Your task to perform on an android device: open sync settings in chrome Image 0: 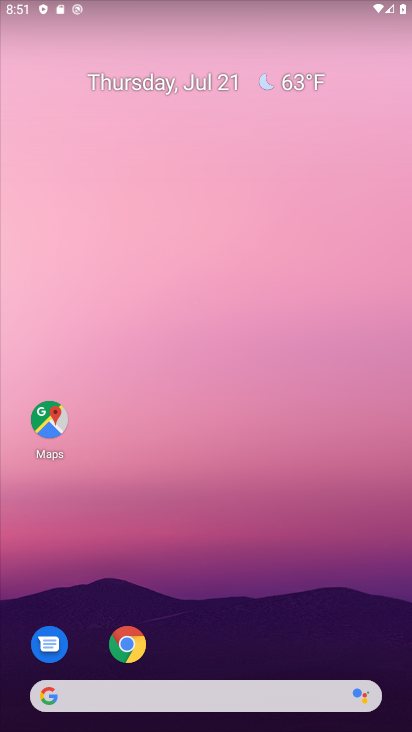
Step 0: press home button
Your task to perform on an android device: open sync settings in chrome Image 1: 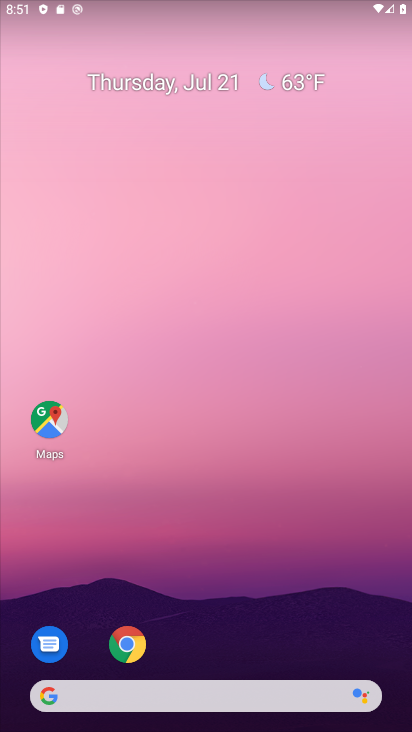
Step 1: click (122, 636)
Your task to perform on an android device: open sync settings in chrome Image 2: 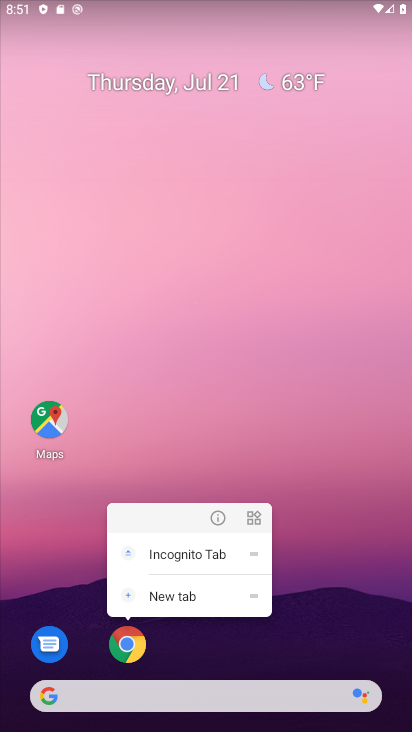
Step 2: click (126, 642)
Your task to perform on an android device: open sync settings in chrome Image 3: 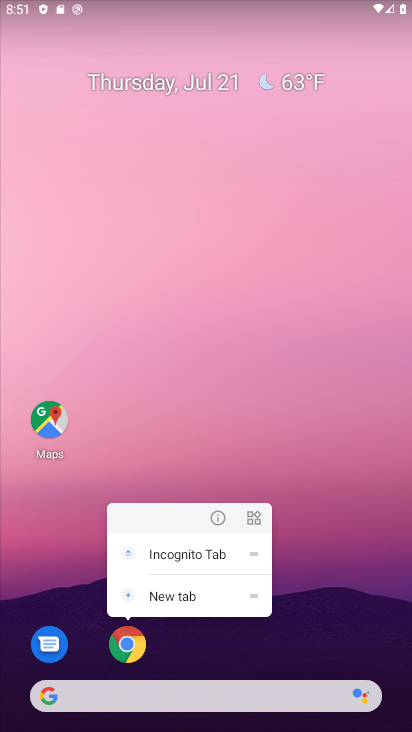
Step 3: click (126, 642)
Your task to perform on an android device: open sync settings in chrome Image 4: 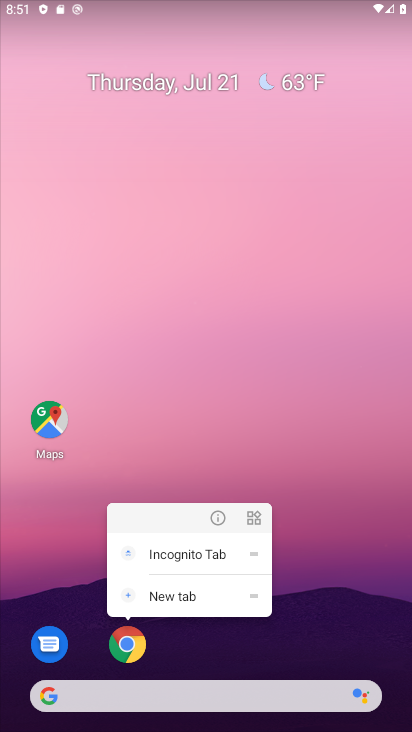
Step 4: click (293, 655)
Your task to perform on an android device: open sync settings in chrome Image 5: 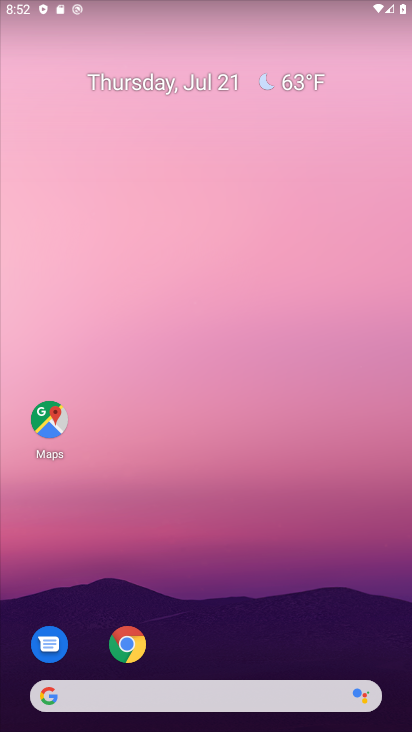
Step 5: drag from (309, 663) to (285, 70)
Your task to perform on an android device: open sync settings in chrome Image 6: 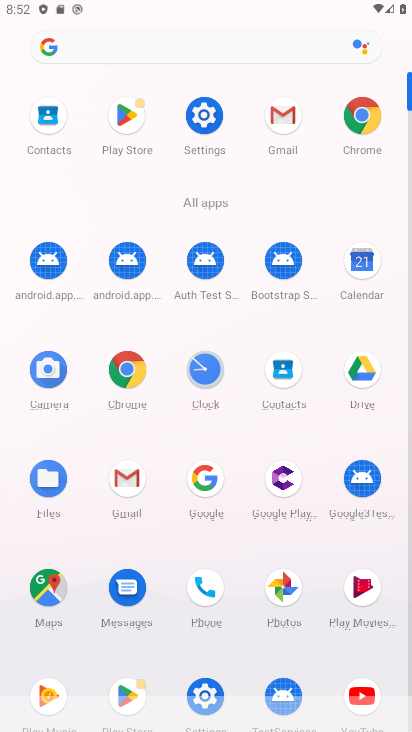
Step 6: click (362, 110)
Your task to perform on an android device: open sync settings in chrome Image 7: 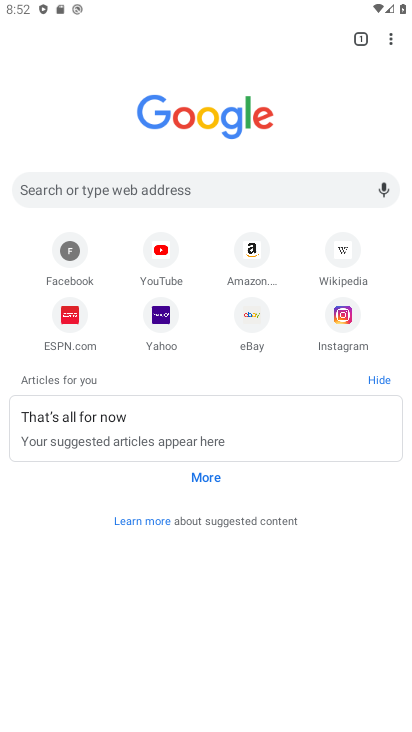
Step 7: click (393, 34)
Your task to perform on an android device: open sync settings in chrome Image 8: 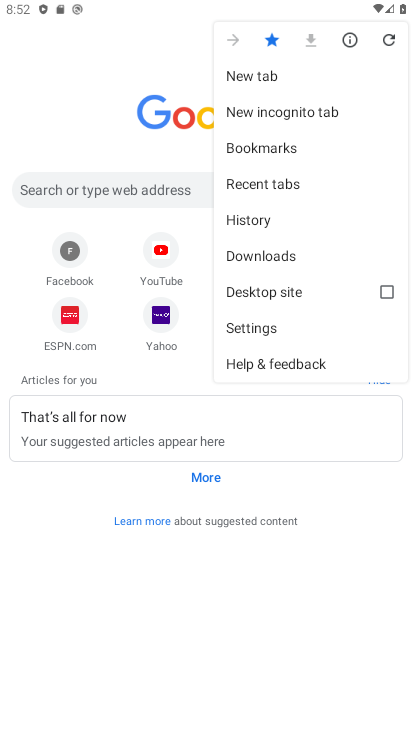
Step 8: click (281, 325)
Your task to perform on an android device: open sync settings in chrome Image 9: 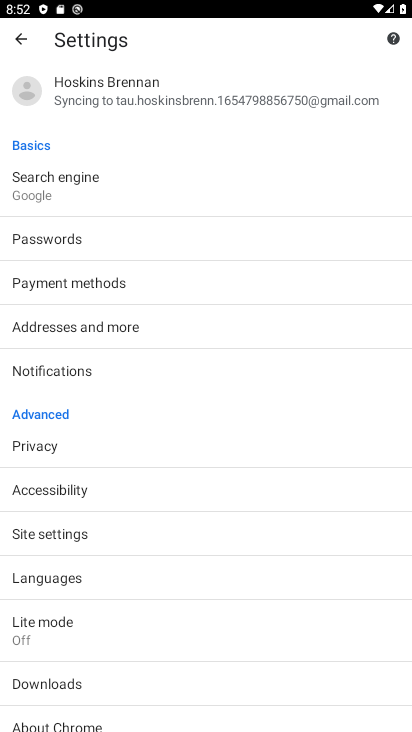
Step 9: click (131, 99)
Your task to perform on an android device: open sync settings in chrome Image 10: 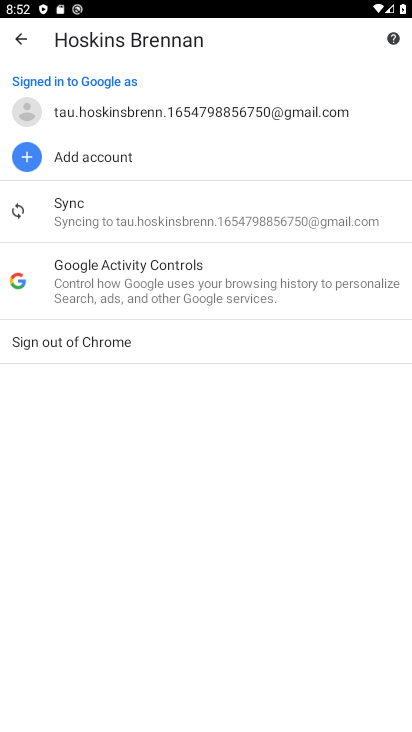
Step 10: click (120, 200)
Your task to perform on an android device: open sync settings in chrome Image 11: 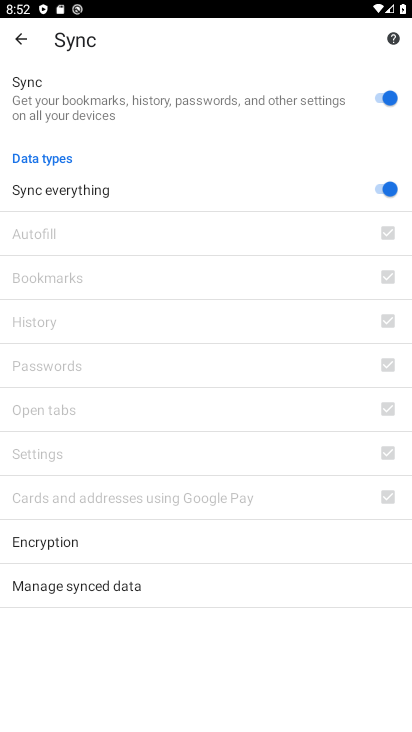
Step 11: task complete